Your task to perform on an android device: Add "razer deathadder" to the cart on bestbuy.com, then select checkout. Image 0: 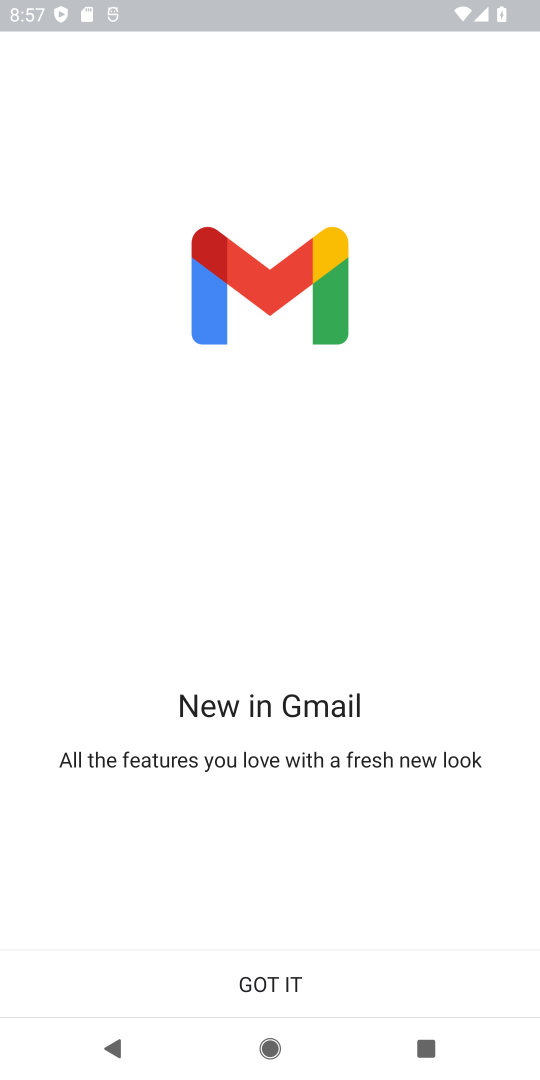
Step 0: press home button
Your task to perform on an android device: Add "razer deathadder" to the cart on bestbuy.com, then select checkout. Image 1: 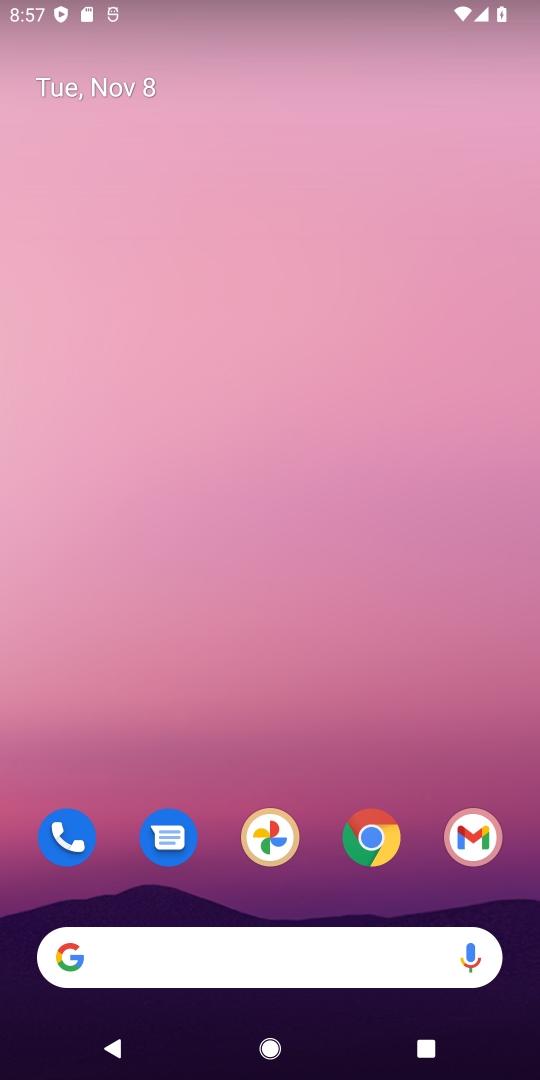
Step 1: click (375, 829)
Your task to perform on an android device: Add "razer deathadder" to the cart on bestbuy.com, then select checkout. Image 2: 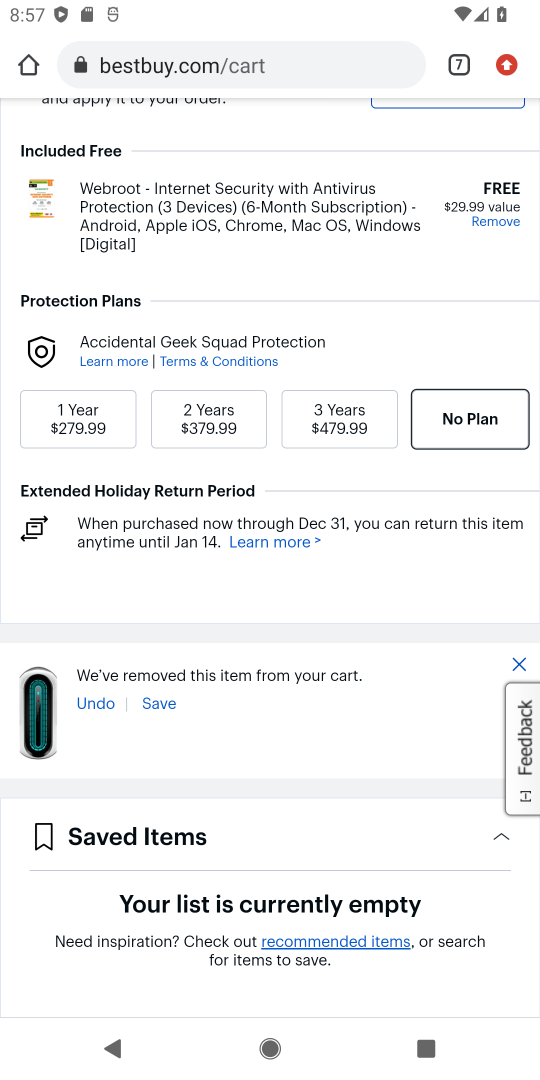
Step 2: drag from (383, 205) to (226, 983)
Your task to perform on an android device: Add "razer deathadder" to the cart on bestbuy.com, then select checkout. Image 3: 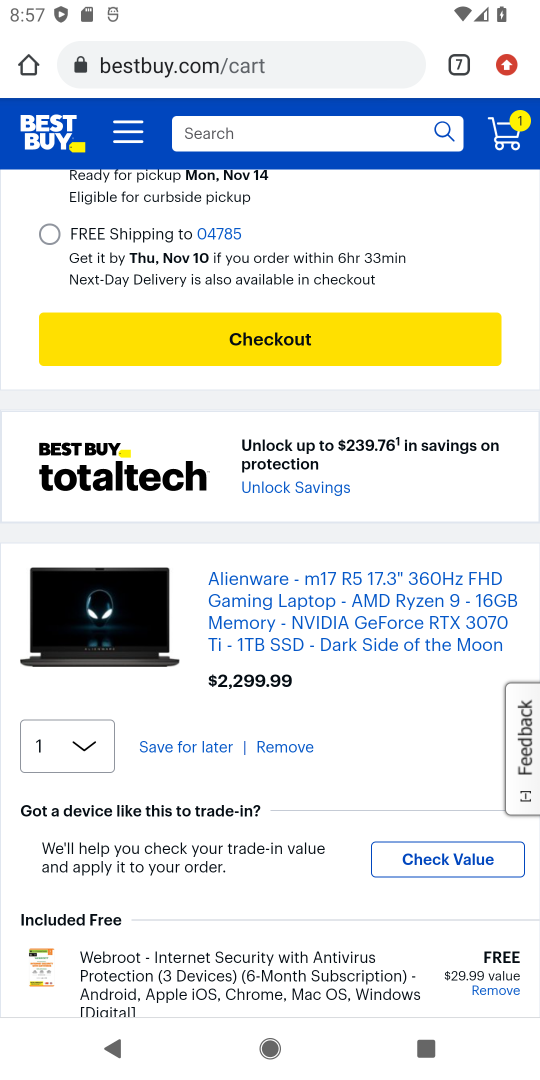
Step 3: click (251, 137)
Your task to perform on an android device: Add "razer deathadder" to the cart on bestbuy.com, then select checkout. Image 4: 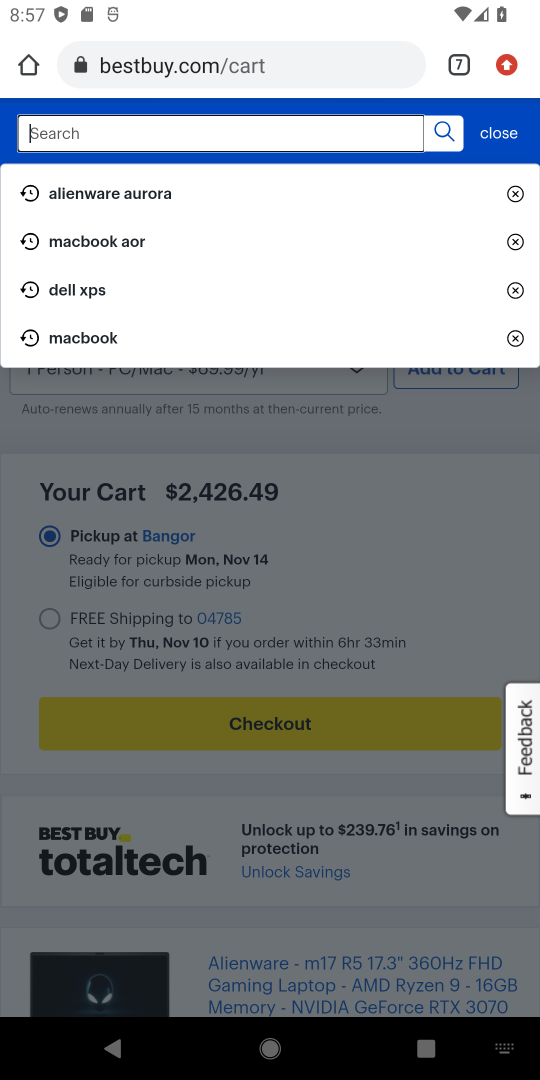
Step 4: type "razer deathadder"
Your task to perform on an android device: Add "razer deathadder" to the cart on bestbuy.com, then select checkout. Image 5: 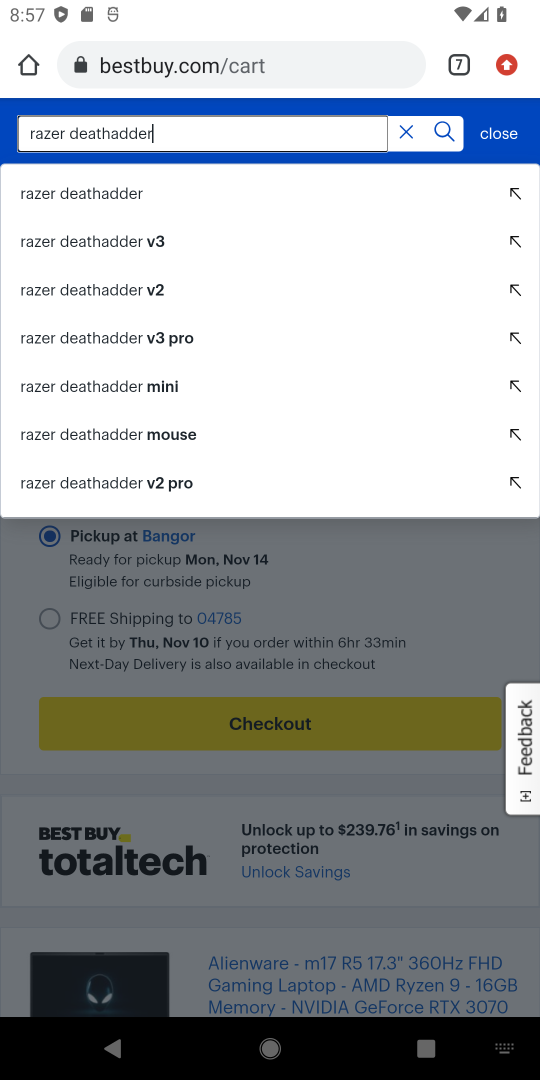
Step 5: click (104, 187)
Your task to perform on an android device: Add "razer deathadder" to the cart on bestbuy.com, then select checkout. Image 6: 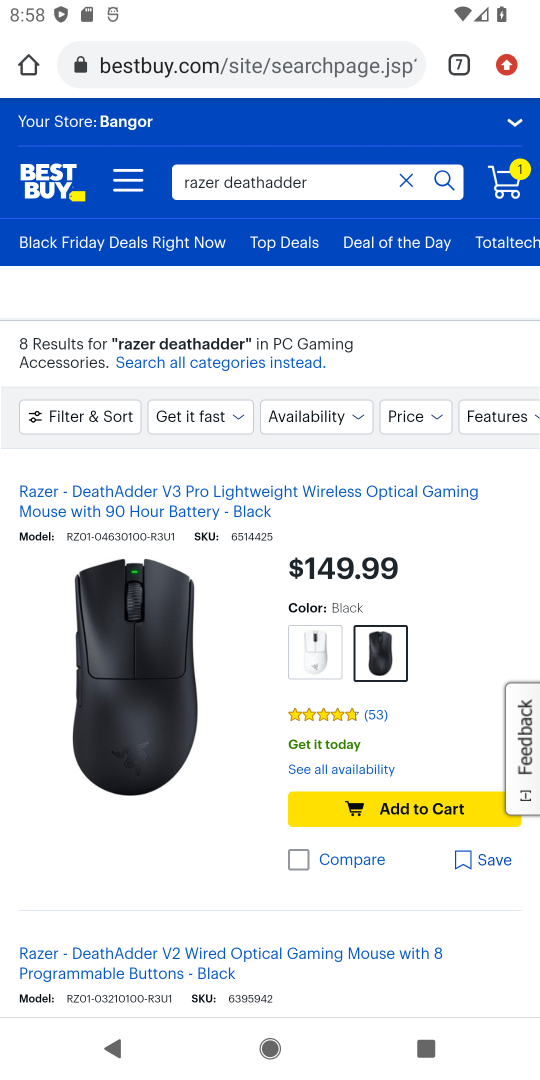
Step 6: click (418, 814)
Your task to perform on an android device: Add "razer deathadder" to the cart on bestbuy.com, then select checkout. Image 7: 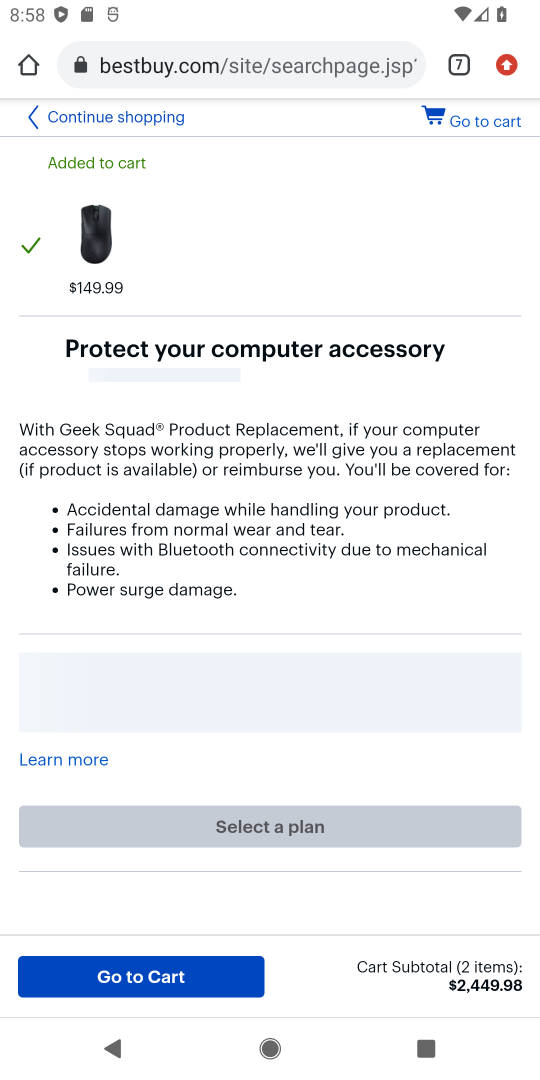
Step 7: click (465, 117)
Your task to perform on an android device: Add "razer deathadder" to the cart on bestbuy.com, then select checkout. Image 8: 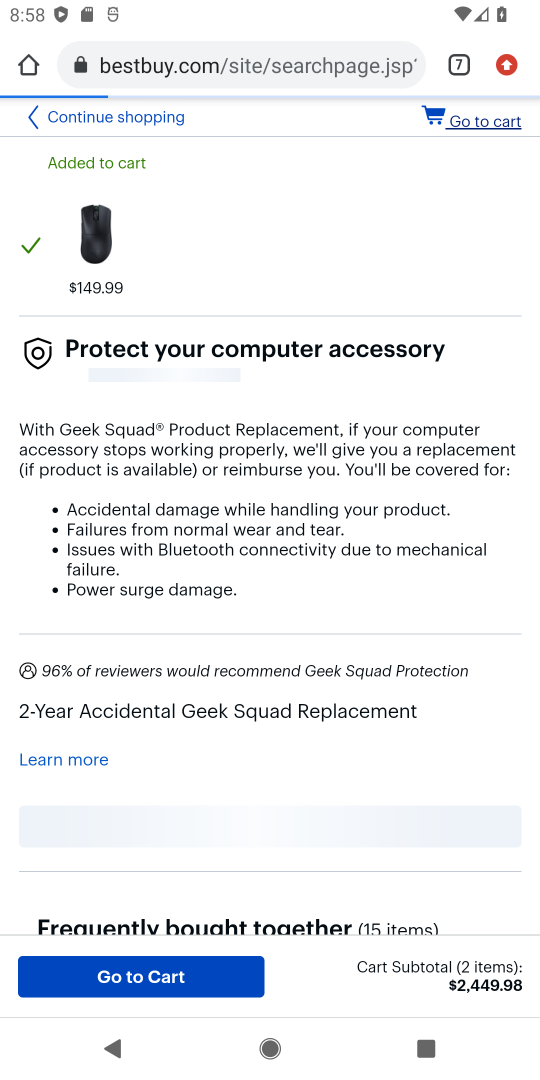
Step 8: click (156, 971)
Your task to perform on an android device: Add "razer deathadder" to the cart on bestbuy.com, then select checkout. Image 9: 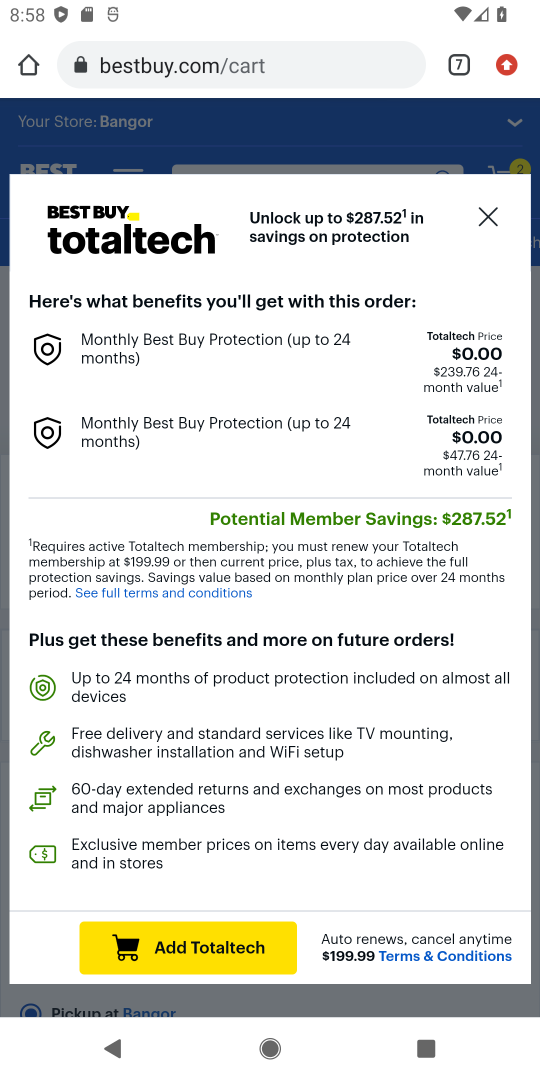
Step 9: click (487, 218)
Your task to perform on an android device: Add "razer deathadder" to the cart on bestbuy.com, then select checkout. Image 10: 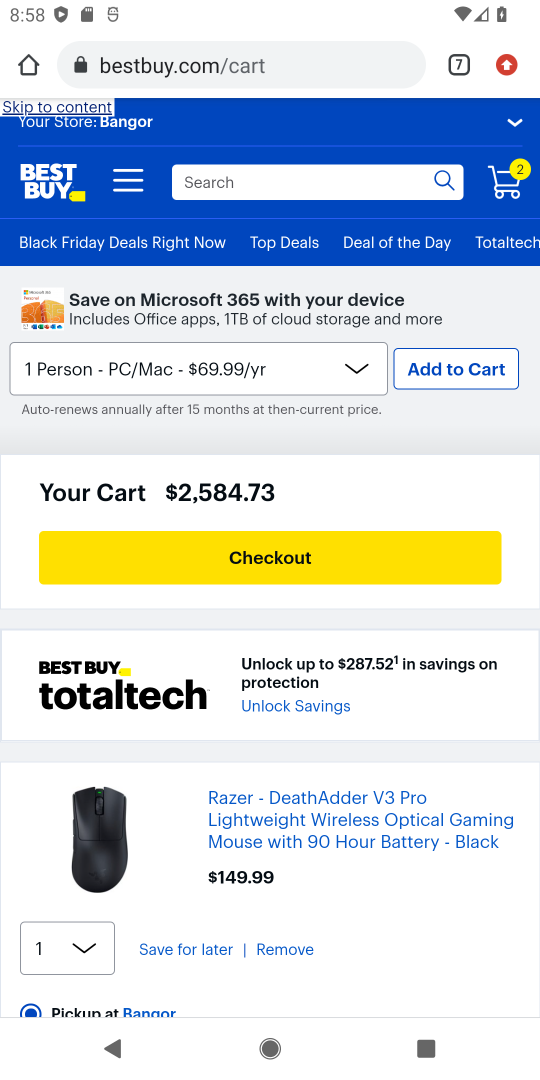
Step 10: click (304, 554)
Your task to perform on an android device: Add "razer deathadder" to the cart on bestbuy.com, then select checkout. Image 11: 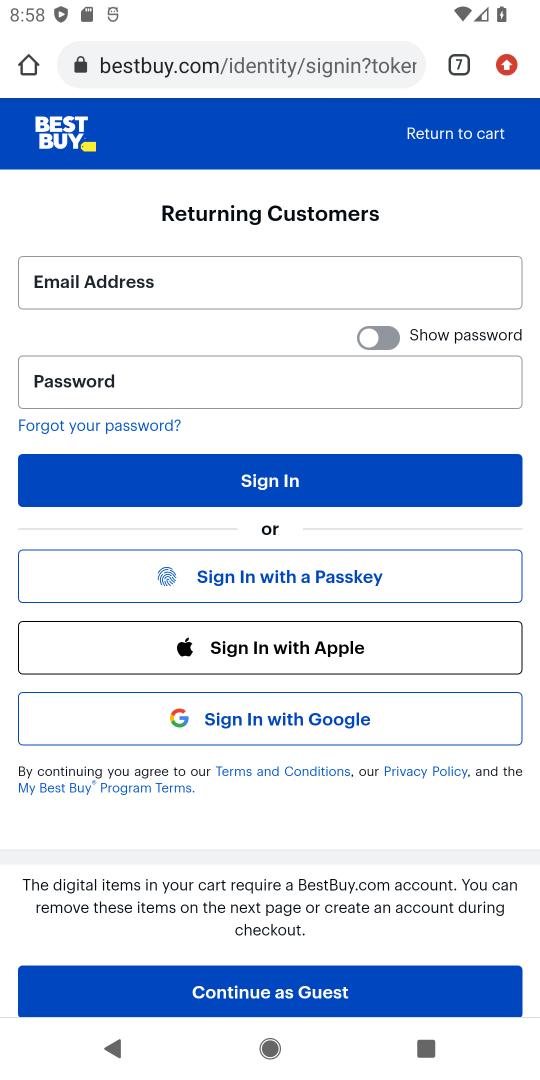
Step 11: task complete